Your task to perform on an android device: Go to CNN.com Image 0: 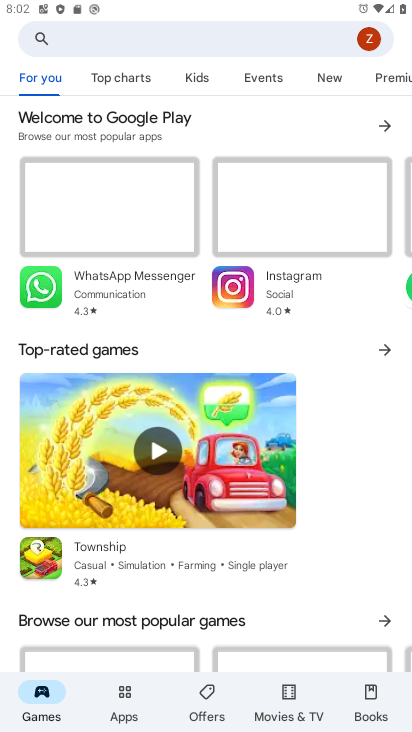
Step 0: press home button
Your task to perform on an android device: Go to CNN.com Image 1: 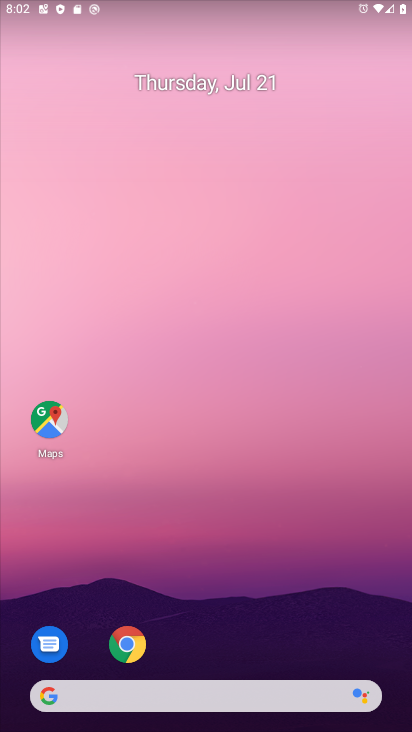
Step 1: click (126, 657)
Your task to perform on an android device: Go to CNN.com Image 2: 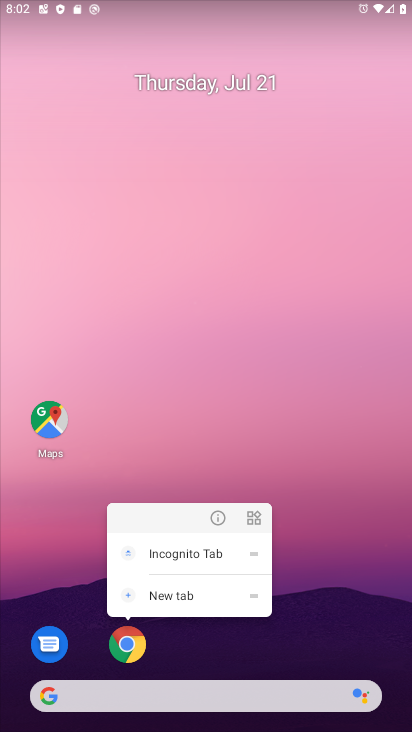
Step 2: click (135, 701)
Your task to perform on an android device: Go to CNN.com Image 3: 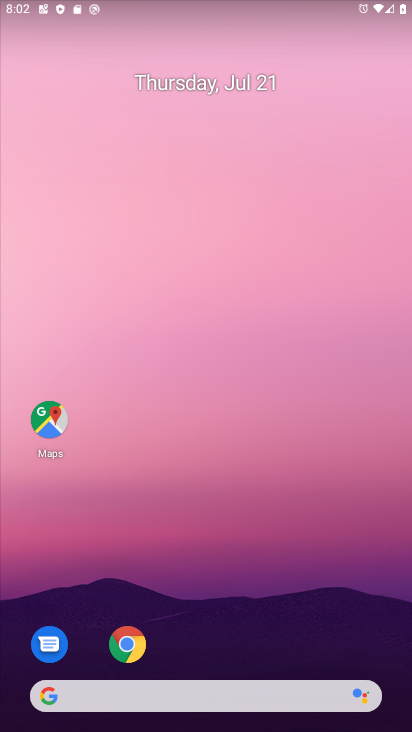
Step 3: click (122, 636)
Your task to perform on an android device: Go to CNN.com Image 4: 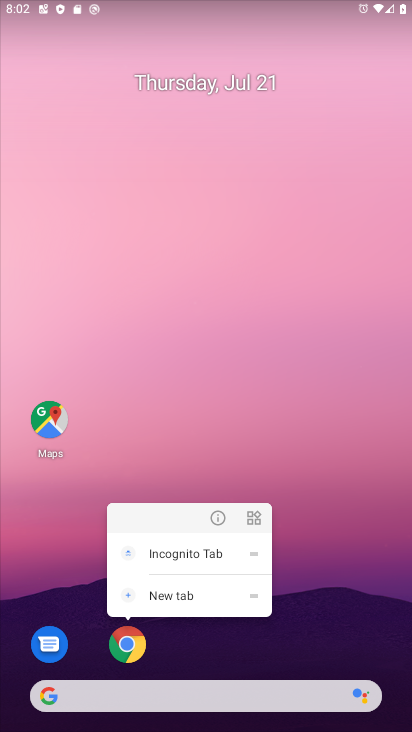
Step 4: click (122, 634)
Your task to perform on an android device: Go to CNN.com Image 5: 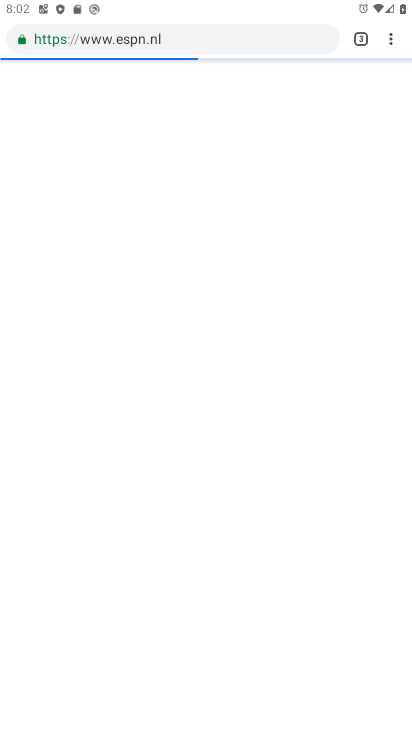
Step 5: click (390, 39)
Your task to perform on an android device: Go to CNN.com Image 6: 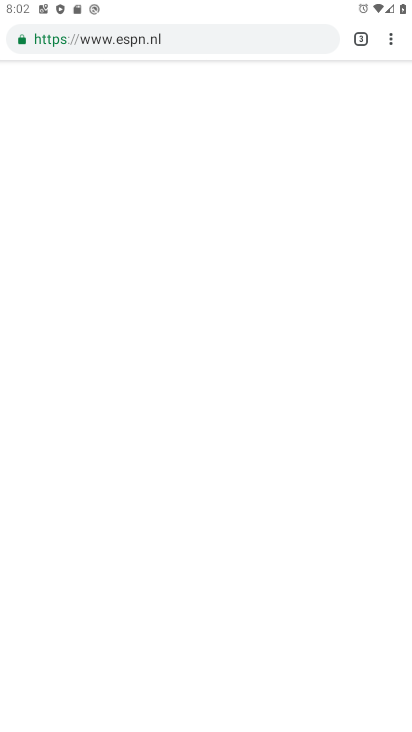
Step 6: click (391, 40)
Your task to perform on an android device: Go to CNN.com Image 7: 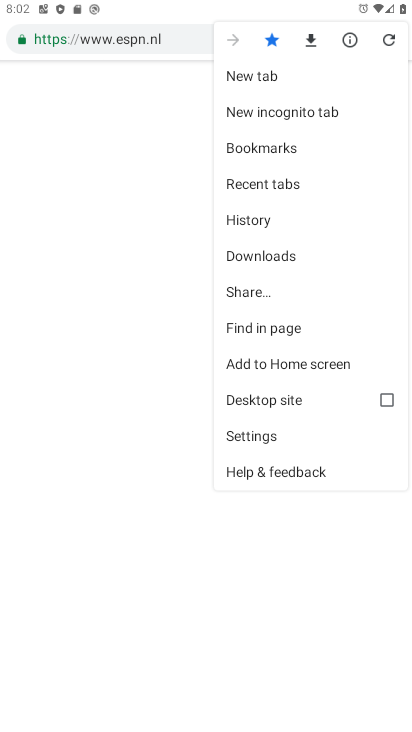
Step 7: click (257, 69)
Your task to perform on an android device: Go to CNN.com Image 8: 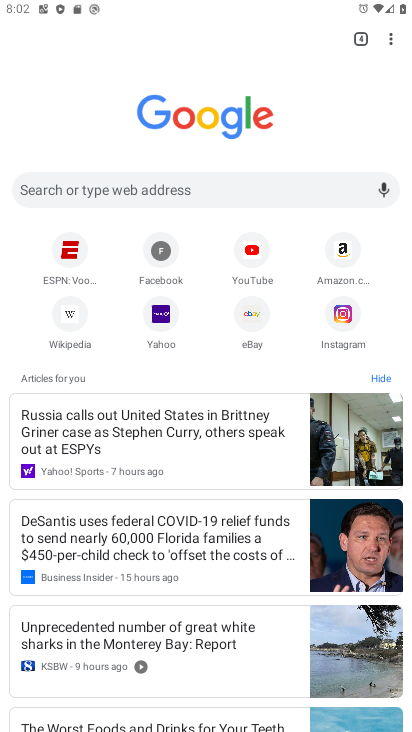
Step 8: click (132, 185)
Your task to perform on an android device: Go to CNN.com Image 9: 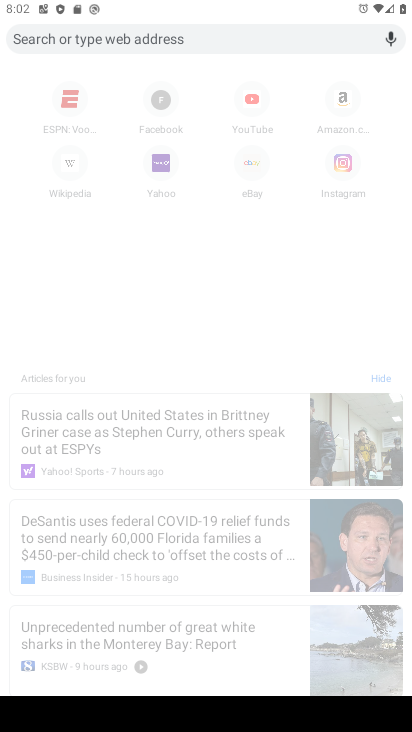
Step 9: type " CNN.com "
Your task to perform on an android device: Go to CNN.com Image 10: 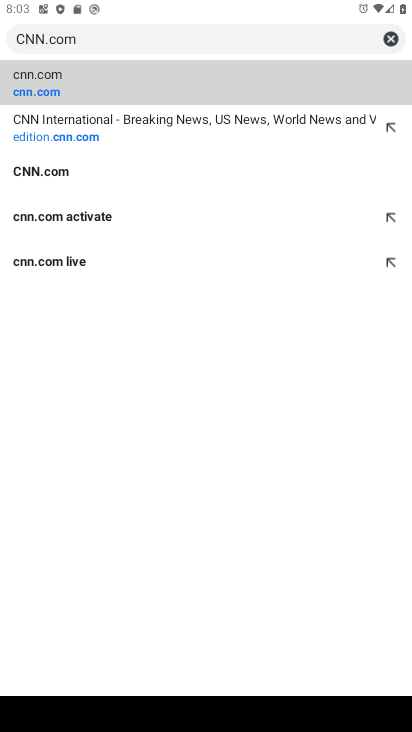
Step 10: click (209, 76)
Your task to perform on an android device: Go to CNN.com Image 11: 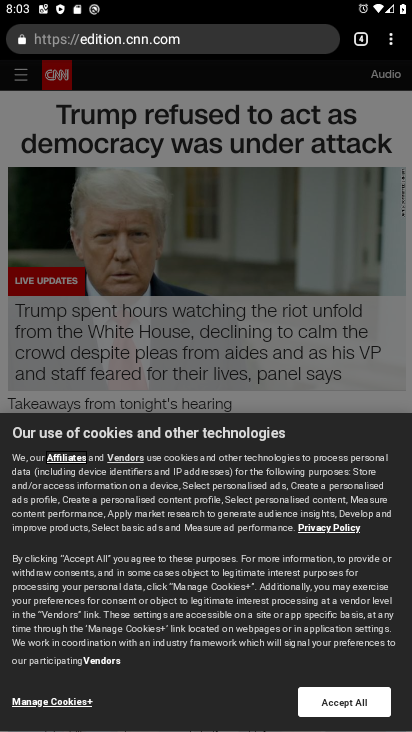
Step 11: task complete